Your task to perform on an android device: Go to location settings Image 0: 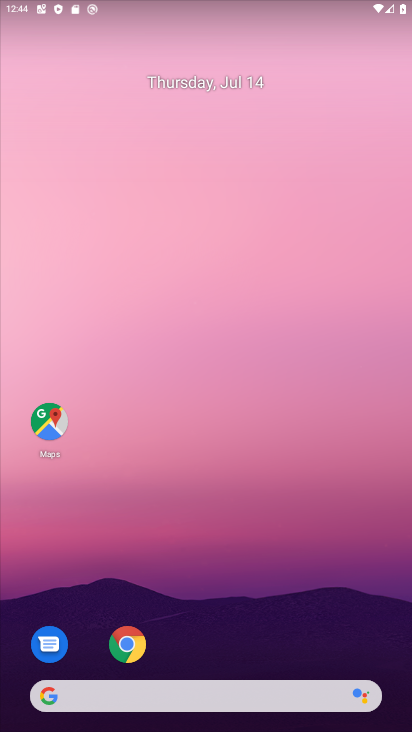
Step 0: drag from (283, 563) to (293, 227)
Your task to perform on an android device: Go to location settings Image 1: 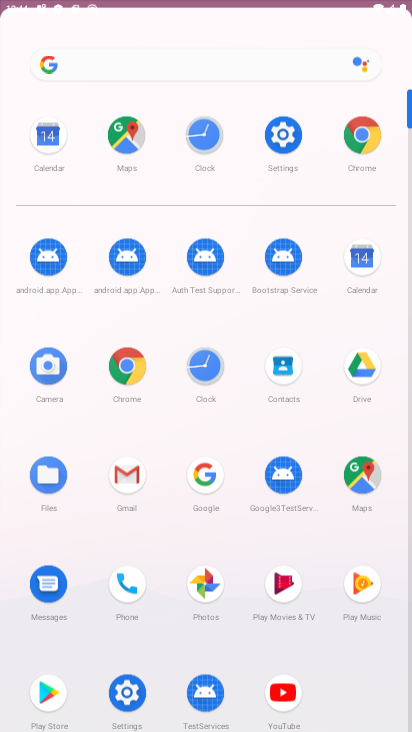
Step 1: click (282, 215)
Your task to perform on an android device: Go to location settings Image 2: 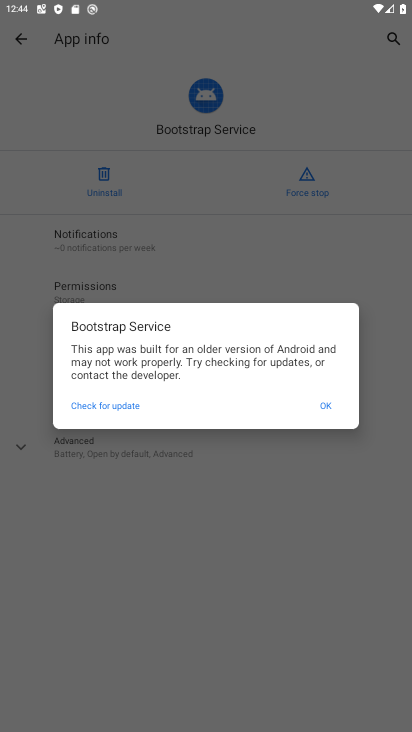
Step 2: click (317, 404)
Your task to perform on an android device: Go to location settings Image 3: 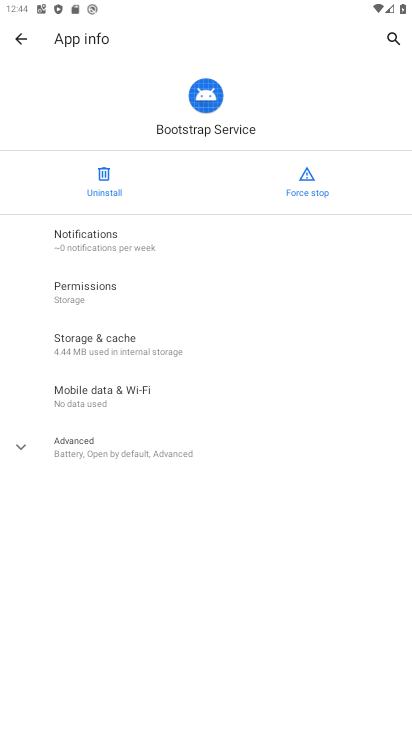
Step 3: press back button
Your task to perform on an android device: Go to location settings Image 4: 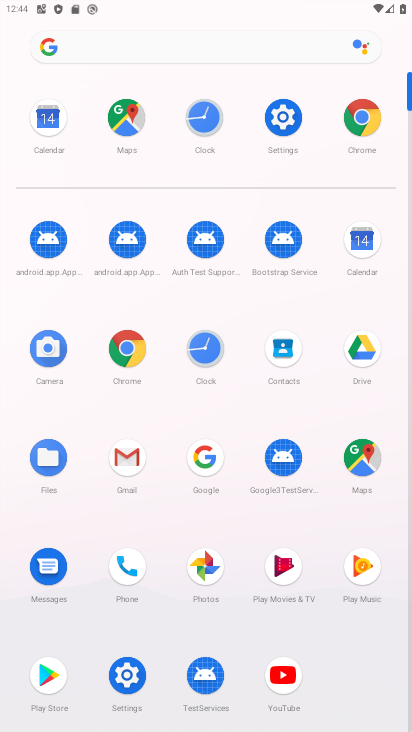
Step 4: click (272, 118)
Your task to perform on an android device: Go to location settings Image 5: 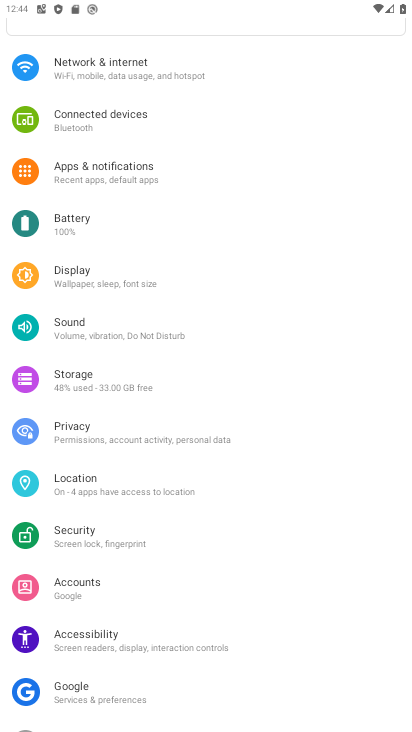
Step 5: click (95, 489)
Your task to perform on an android device: Go to location settings Image 6: 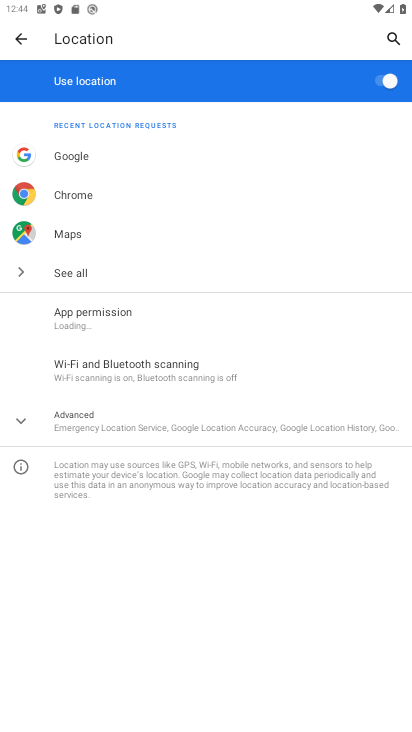
Step 6: task complete